Your task to perform on an android device: Check the news Image 0: 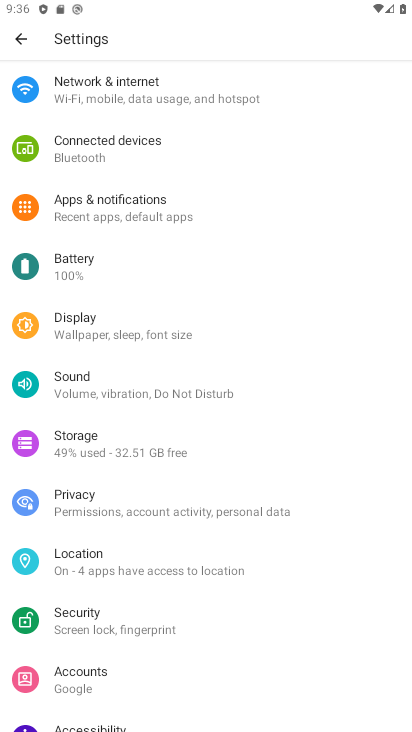
Step 0: press home button
Your task to perform on an android device: Check the news Image 1: 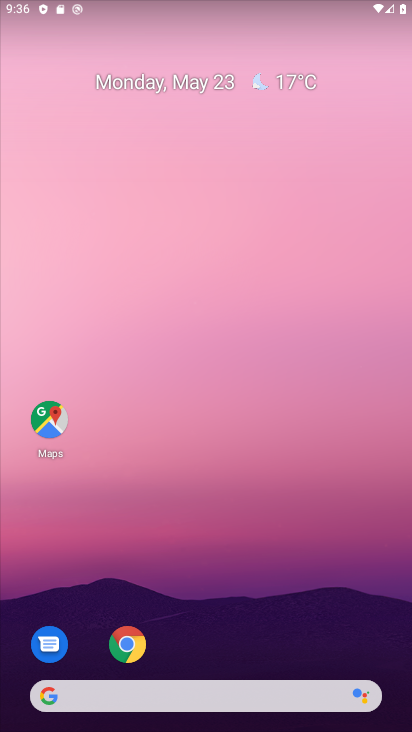
Step 1: click (119, 644)
Your task to perform on an android device: Check the news Image 2: 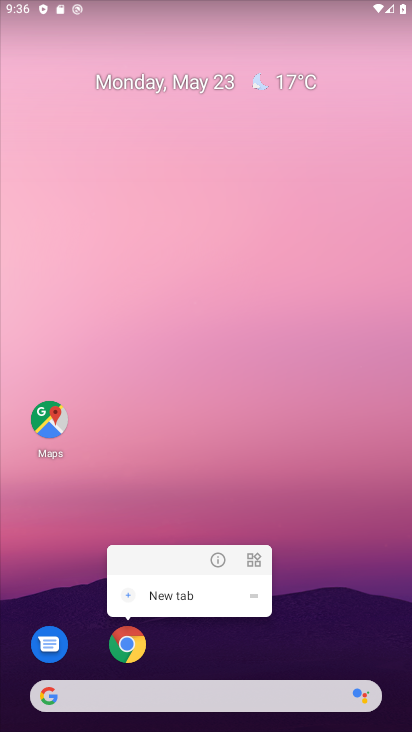
Step 2: click (125, 642)
Your task to perform on an android device: Check the news Image 3: 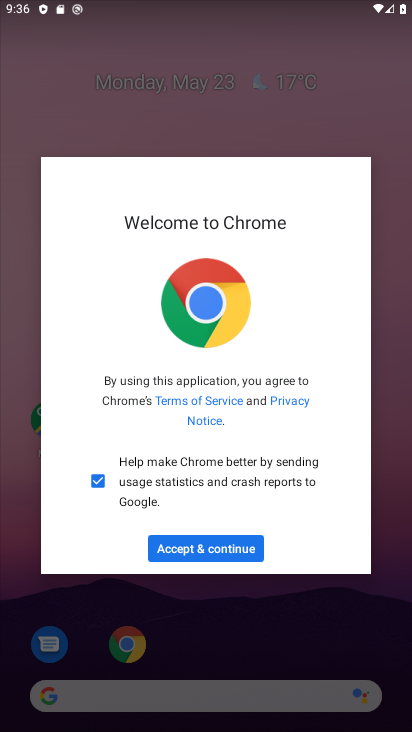
Step 3: click (190, 552)
Your task to perform on an android device: Check the news Image 4: 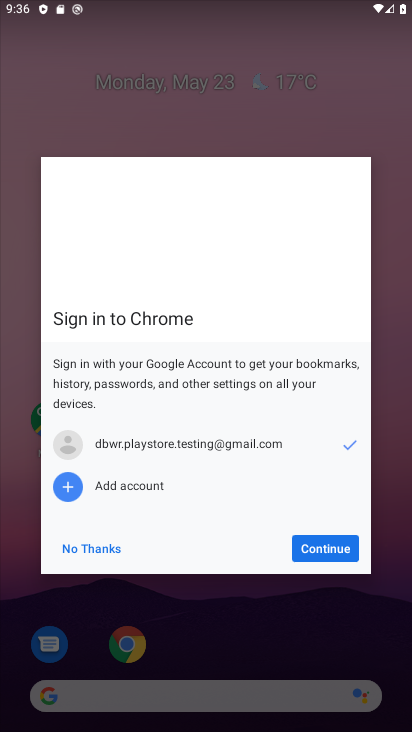
Step 4: click (342, 558)
Your task to perform on an android device: Check the news Image 5: 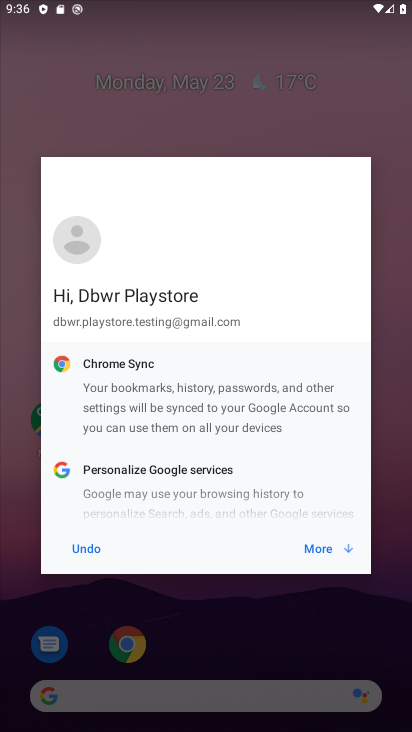
Step 5: click (311, 542)
Your task to perform on an android device: Check the news Image 6: 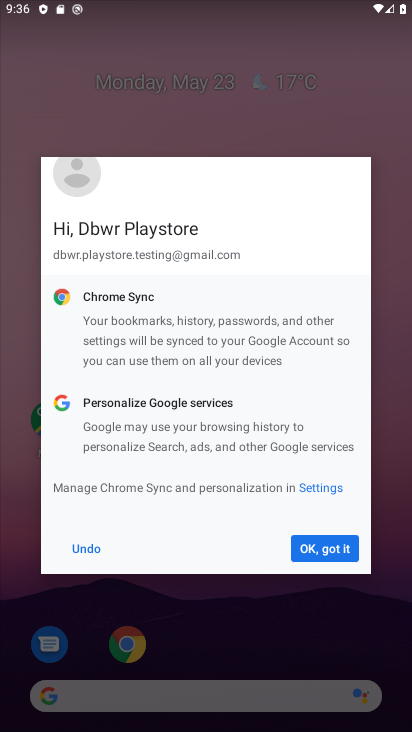
Step 6: click (328, 543)
Your task to perform on an android device: Check the news Image 7: 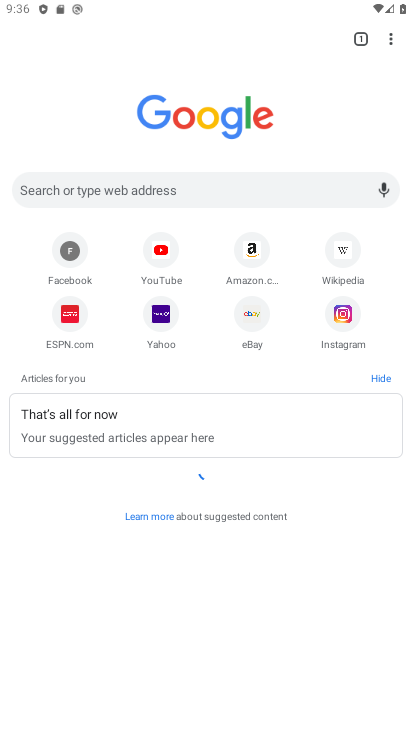
Step 7: click (138, 190)
Your task to perform on an android device: Check the news Image 8: 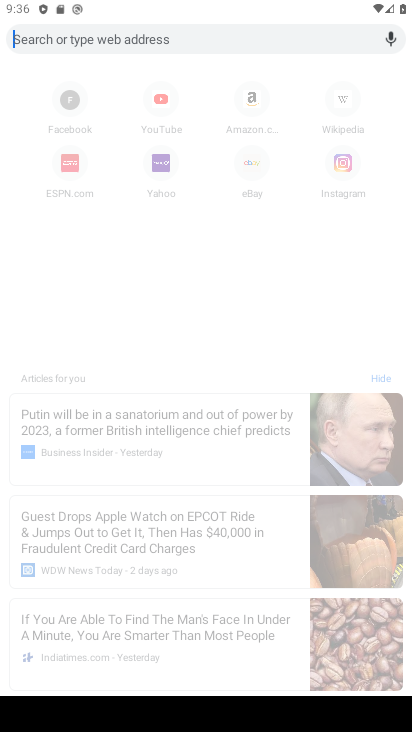
Step 8: type "news"
Your task to perform on an android device: Check the news Image 9: 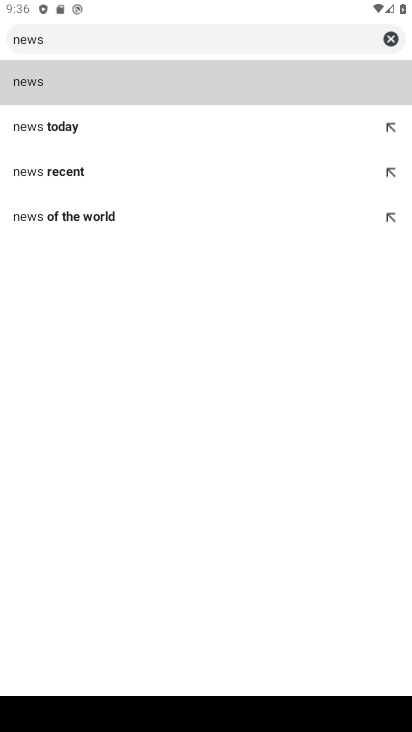
Step 9: click (89, 84)
Your task to perform on an android device: Check the news Image 10: 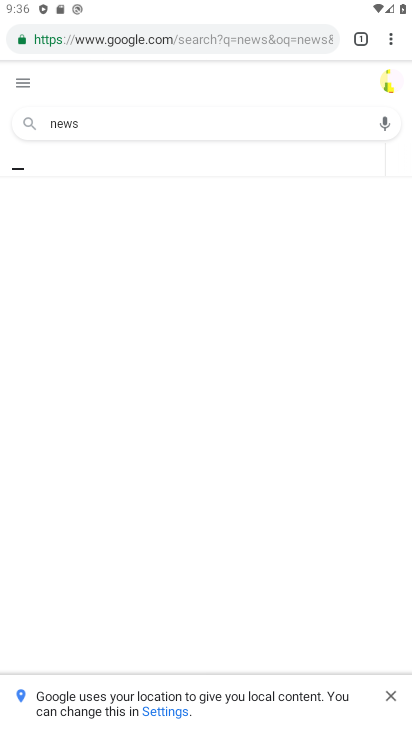
Step 10: task complete